Your task to perform on an android device: open chrome privacy settings Image 0: 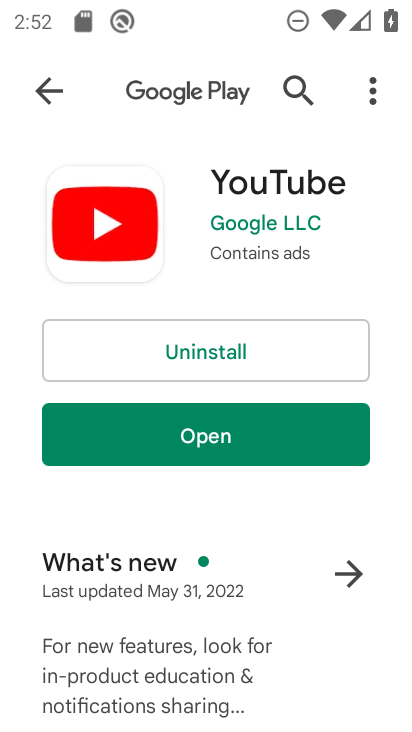
Step 0: press home button
Your task to perform on an android device: open chrome privacy settings Image 1: 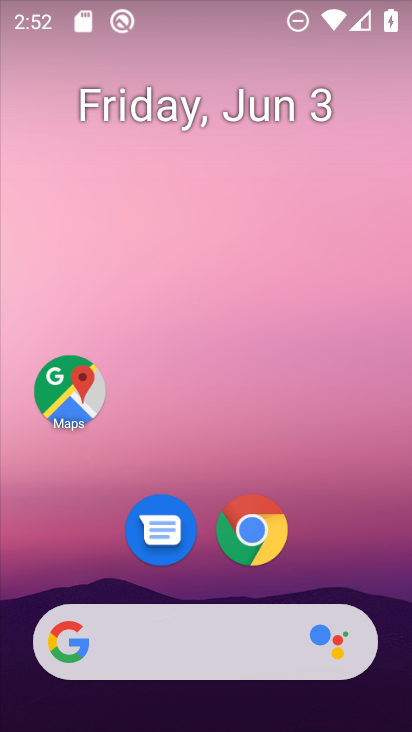
Step 1: click (250, 533)
Your task to perform on an android device: open chrome privacy settings Image 2: 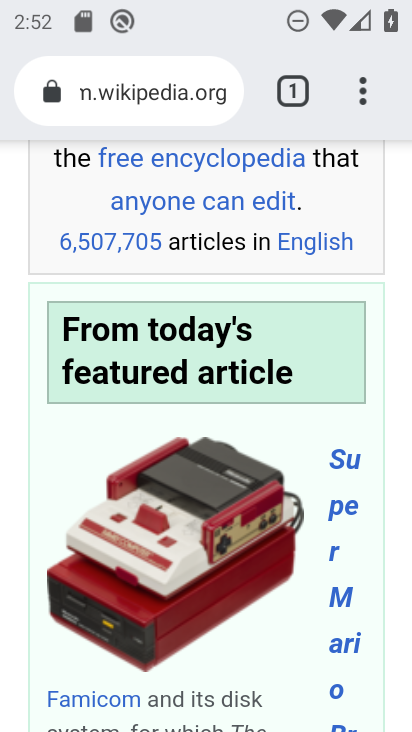
Step 2: click (360, 75)
Your task to perform on an android device: open chrome privacy settings Image 3: 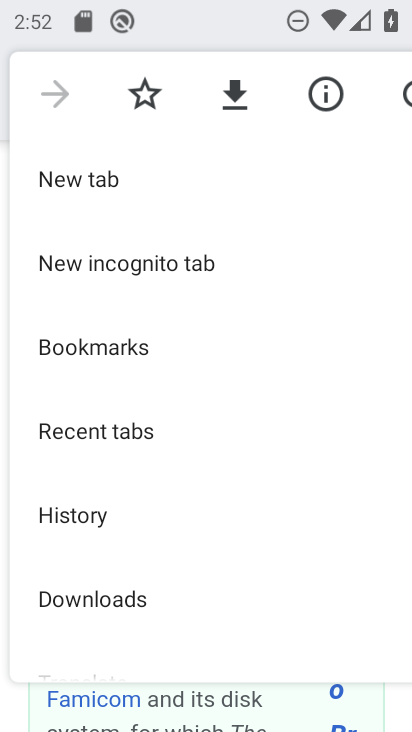
Step 3: drag from (206, 357) to (191, 159)
Your task to perform on an android device: open chrome privacy settings Image 4: 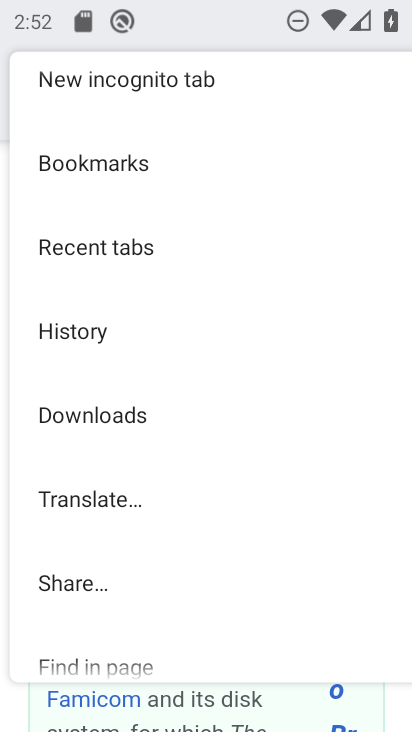
Step 4: drag from (144, 485) to (121, 220)
Your task to perform on an android device: open chrome privacy settings Image 5: 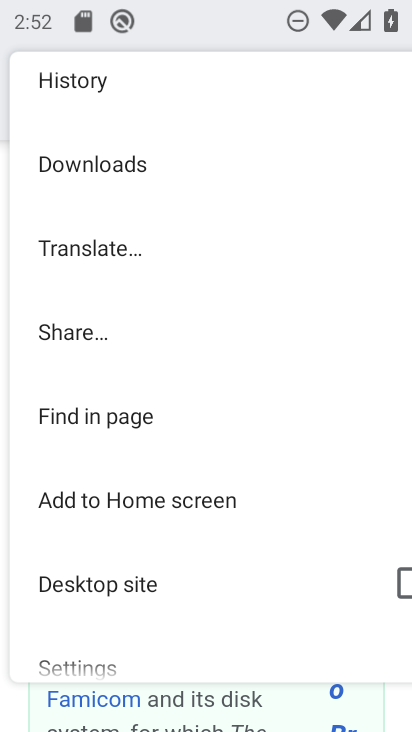
Step 5: drag from (157, 484) to (157, 307)
Your task to perform on an android device: open chrome privacy settings Image 6: 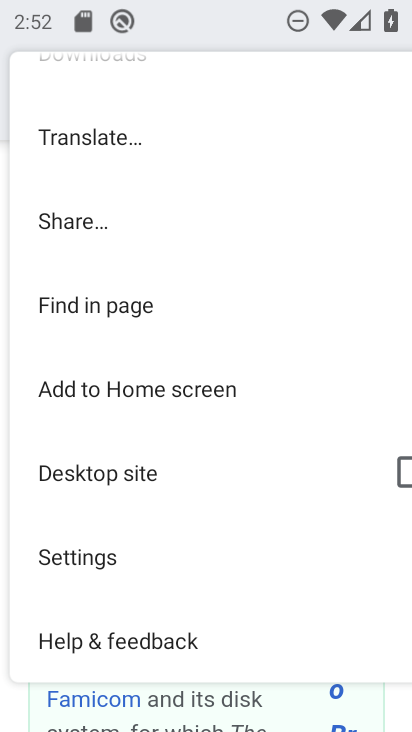
Step 6: click (76, 563)
Your task to perform on an android device: open chrome privacy settings Image 7: 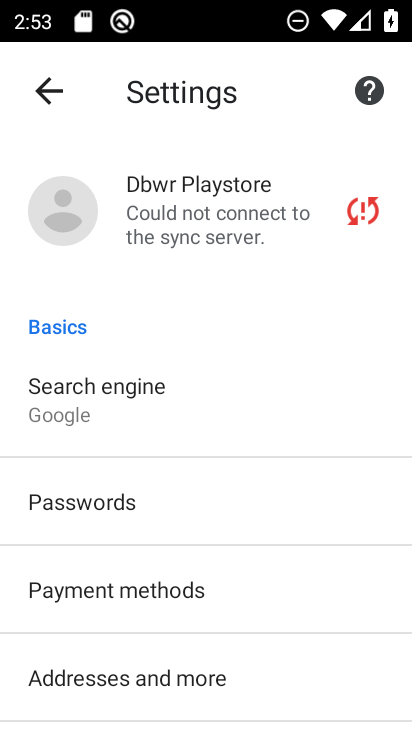
Step 7: drag from (256, 584) to (214, 270)
Your task to perform on an android device: open chrome privacy settings Image 8: 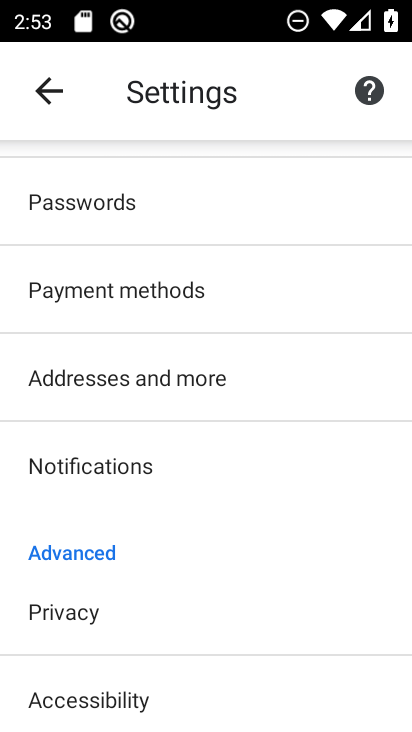
Step 8: click (76, 597)
Your task to perform on an android device: open chrome privacy settings Image 9: 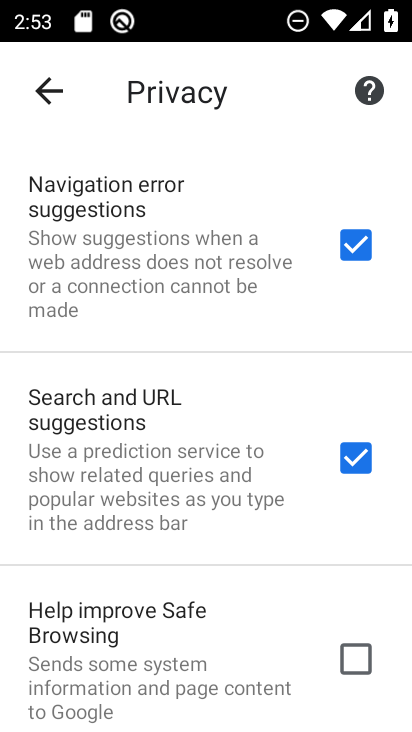
Step 9: task complete